Your task to perform on an android device: turn off javascript in the chrome app Image 0: 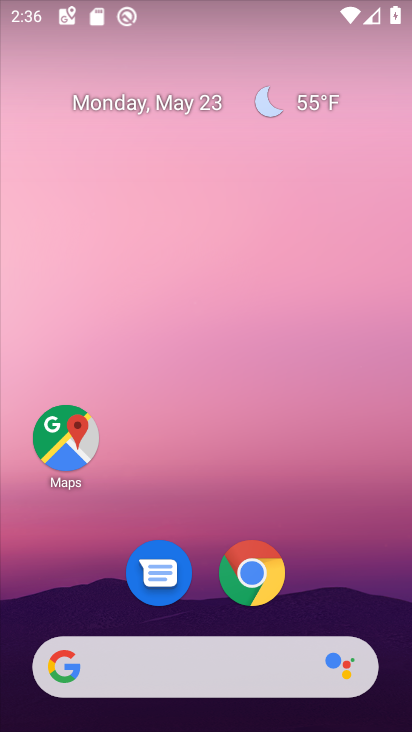
Step 0: click (254, 574)
Your task to perform on an android device: turn off javascript in the chrome app Image 1: 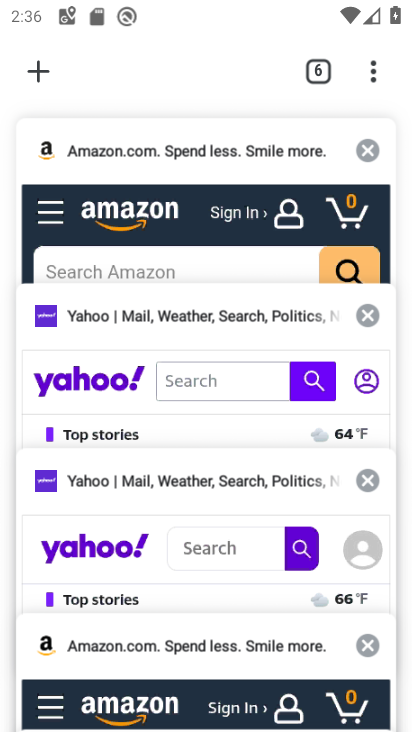
Step 1: click (371, 77)
Your task to perform on an android device: turn off javascript in the chrome app Image 2: 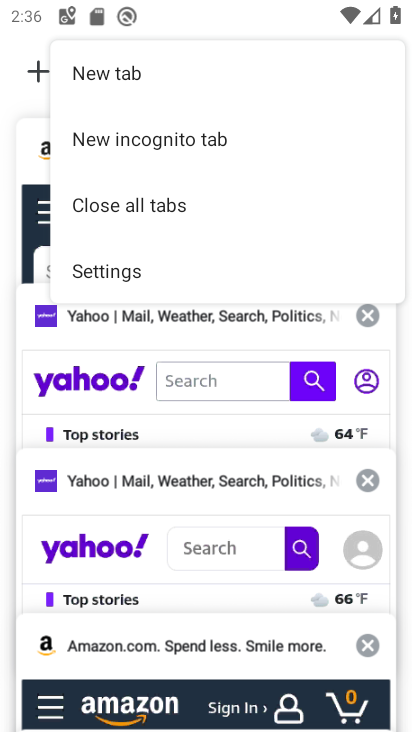
Step 2: click (133, 275)
Your task to perform on an android device: turn off javascript in the chrome app Image 3: 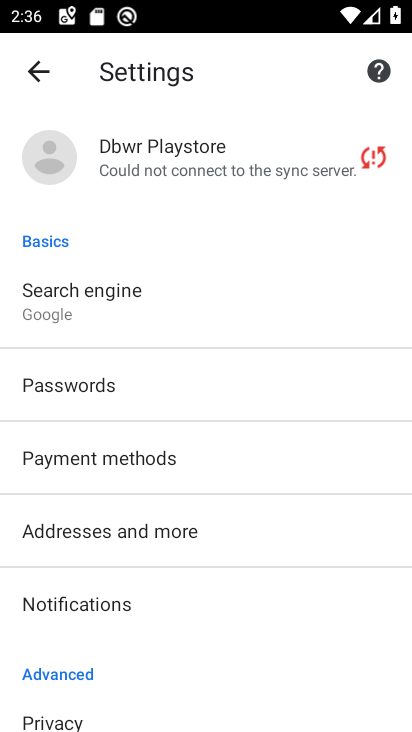
Step 3: drag from (217, 609) to (224, 174)
Your task to perform on an android device: turn off javascript in the chrome app Image 4: 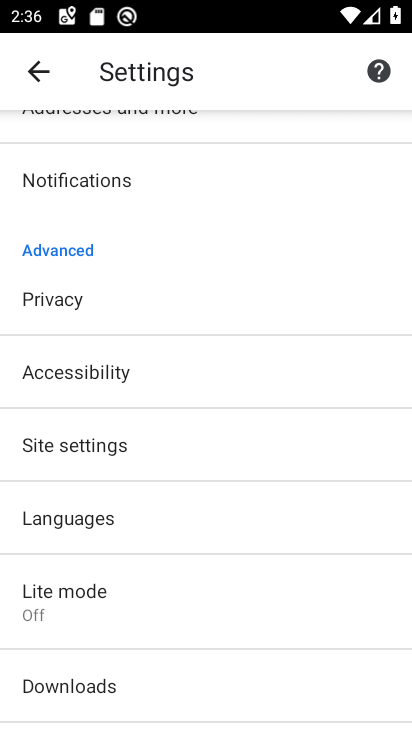
Step 4: click (112, 445)
Your task to perform on an android device: turn off javascript in the chrome app Image 5: 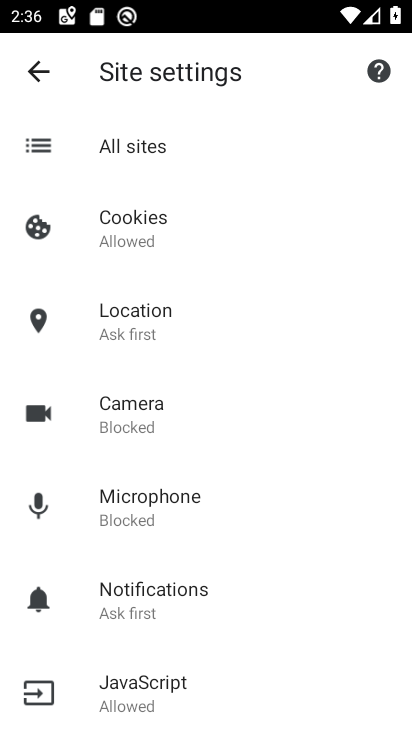
Step 5: click (138, 695)
Your task to perform on an android device: turn off javascript in the chrome app Image 6: 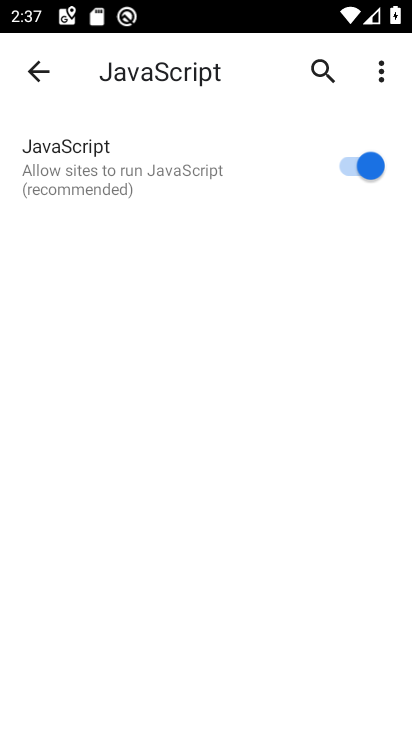
Step 6: click (346, 161)
Your task to perform on an android device: turn off javascript in the chrome app Image 7: 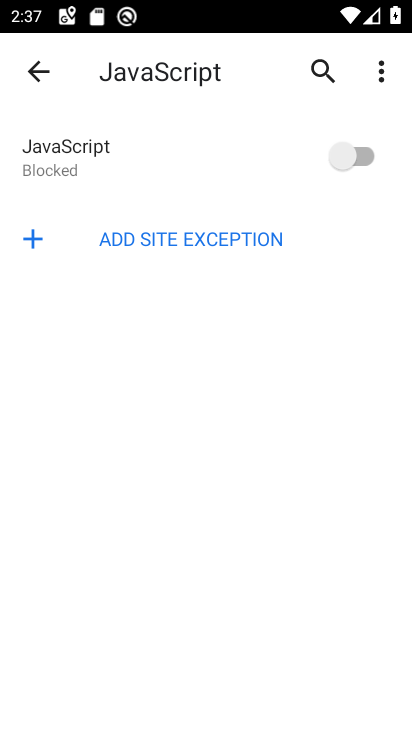
Step 7: task complete